Your task to perform on an android device: Go to notification settings Image 0: 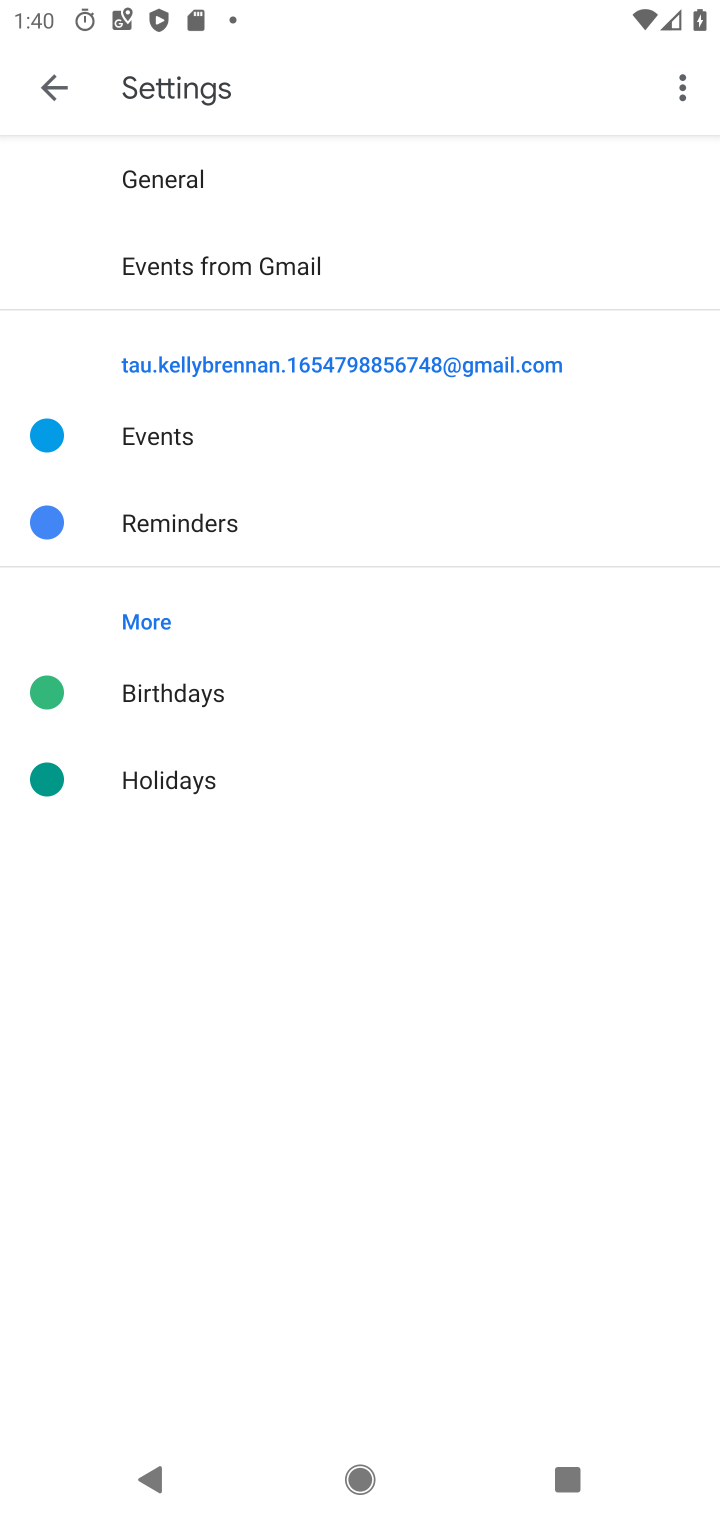
Step 0: press home button
Your task to perform on an android device: Go to notification settings Image 1: 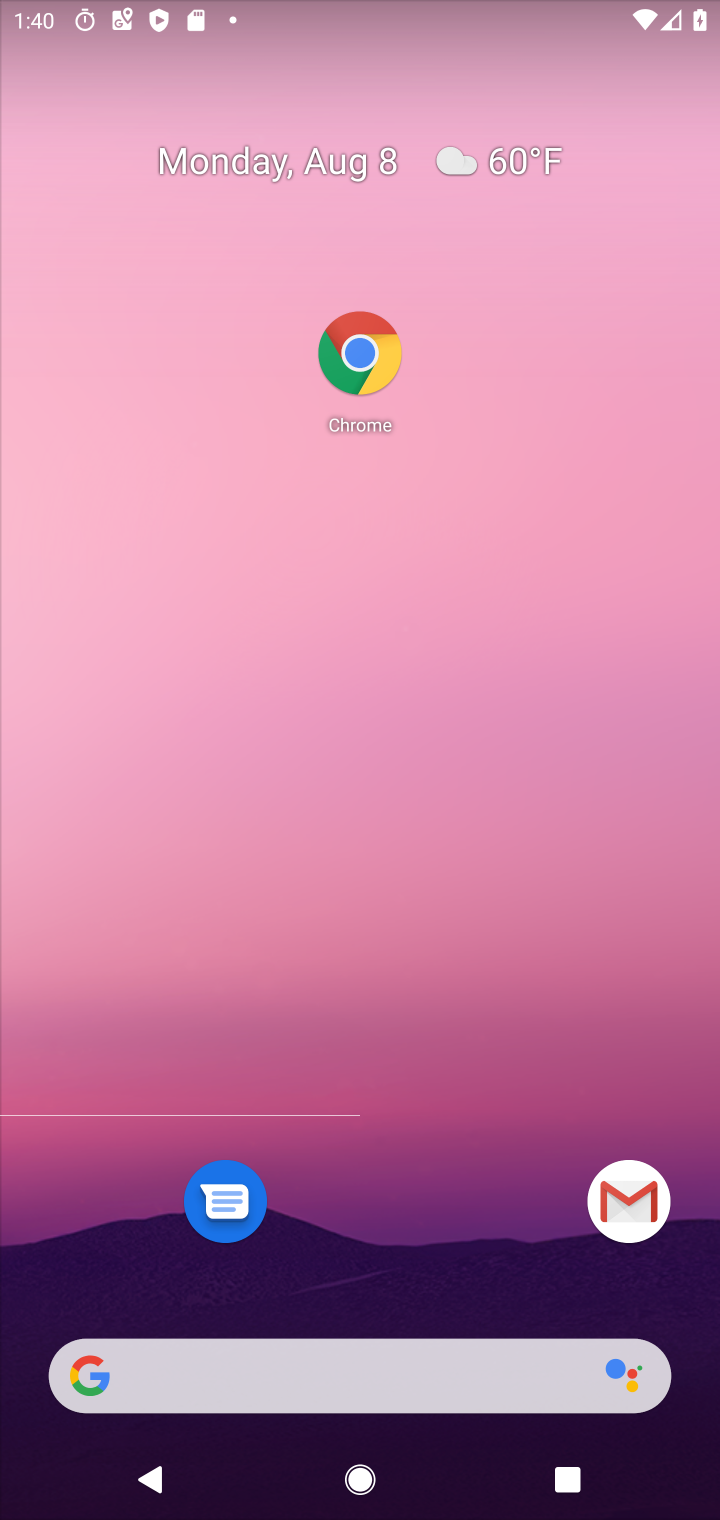
Step 1: drag from (411, 1375) to (585, 303)
Your task to perform on an android device: Go to notification settings Image 2: 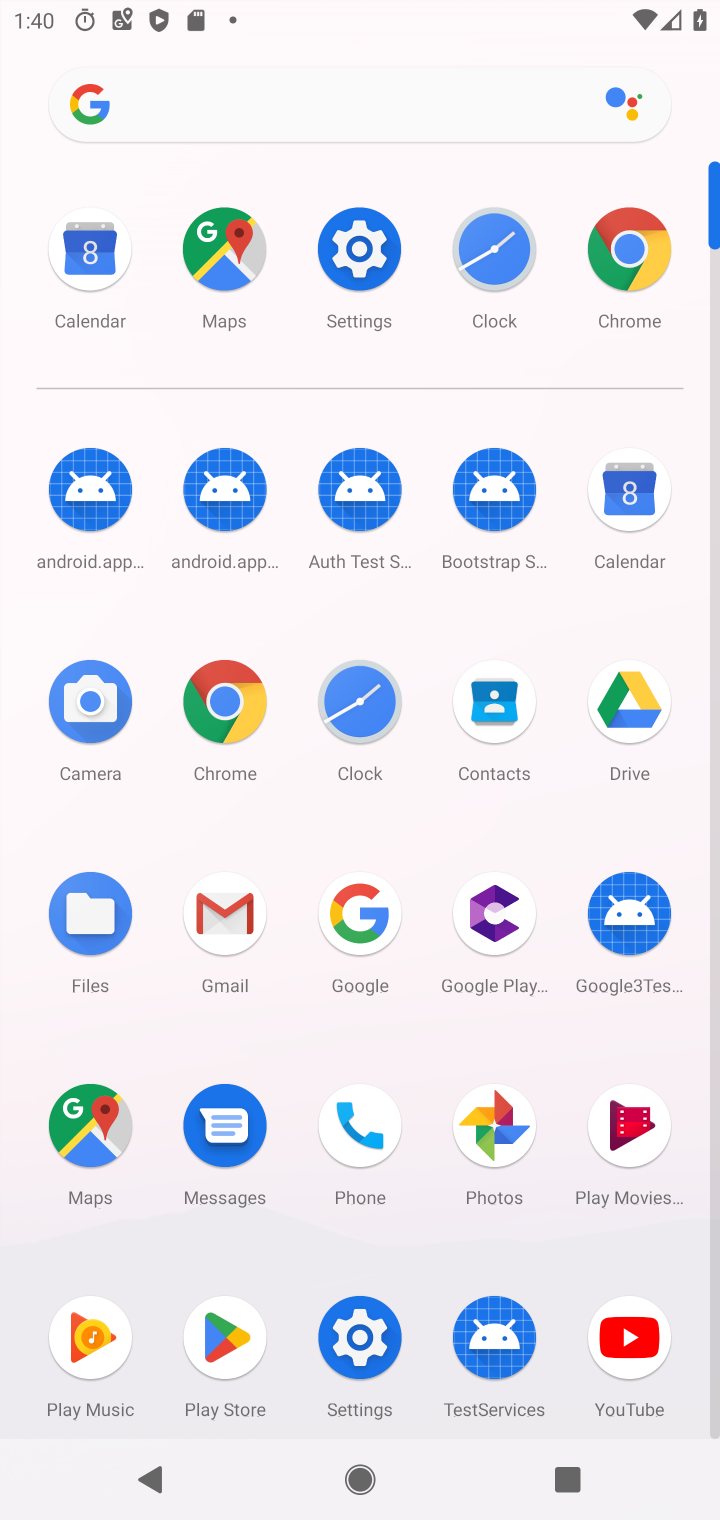
Step 2: click (362, 263)
Your task to perform on an android device: Go to notification settings Image 3: 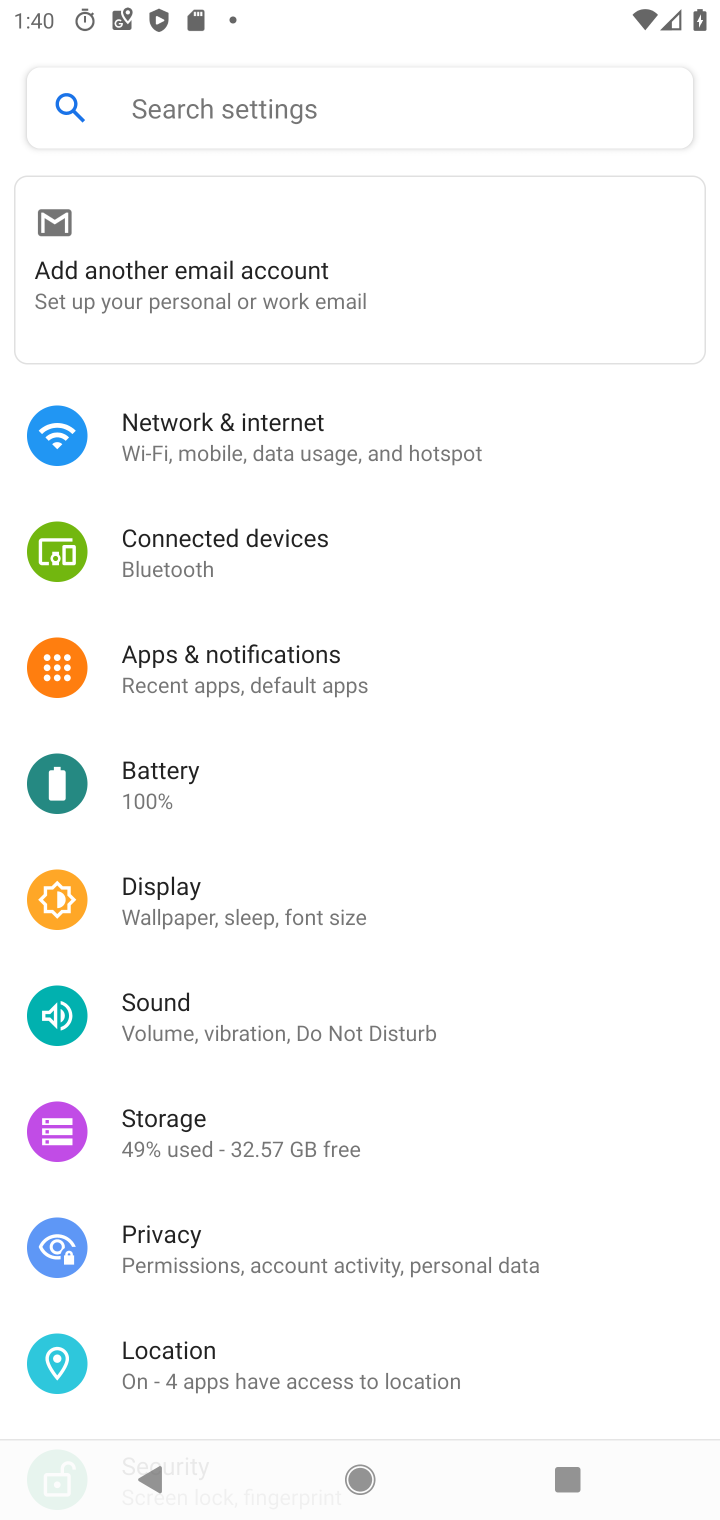
Step 3: click (214, 123)
Your task to perform on an android device: Go to notification settings Image 4: 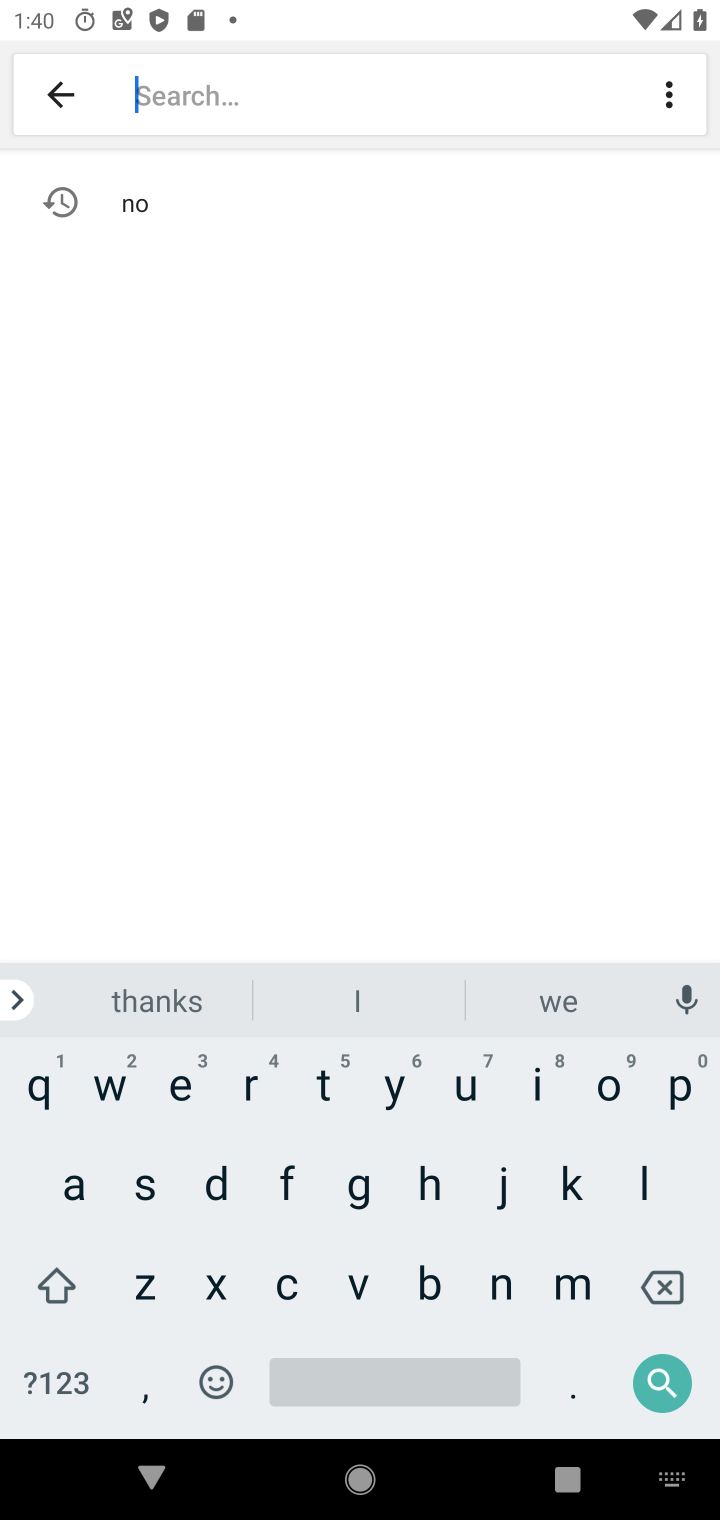
Step 4: click (229, 198)
Your task to perform on an android device: Go to notification settings Image 5: 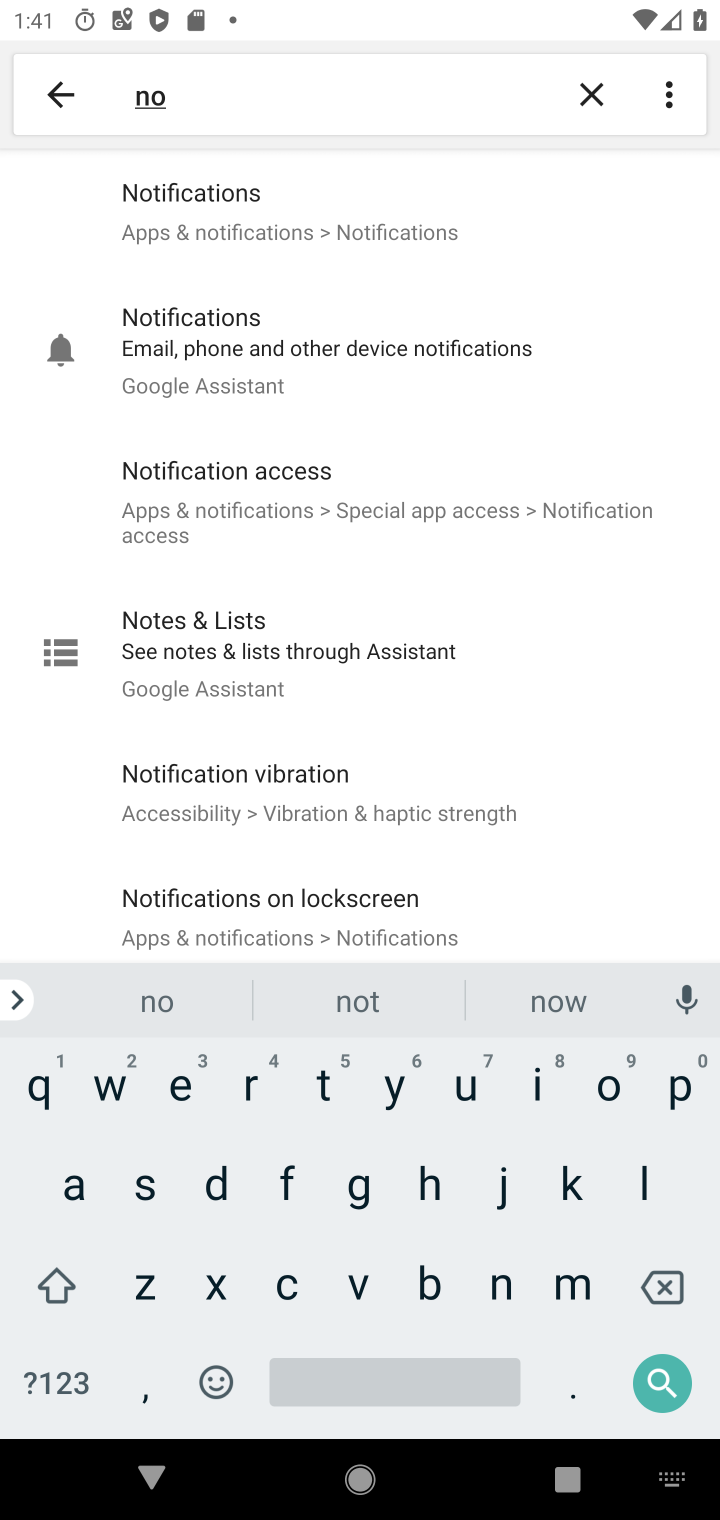
Step 5: click (198, 194)
Your task to perform on an android device: Go to notification settings Image 6: 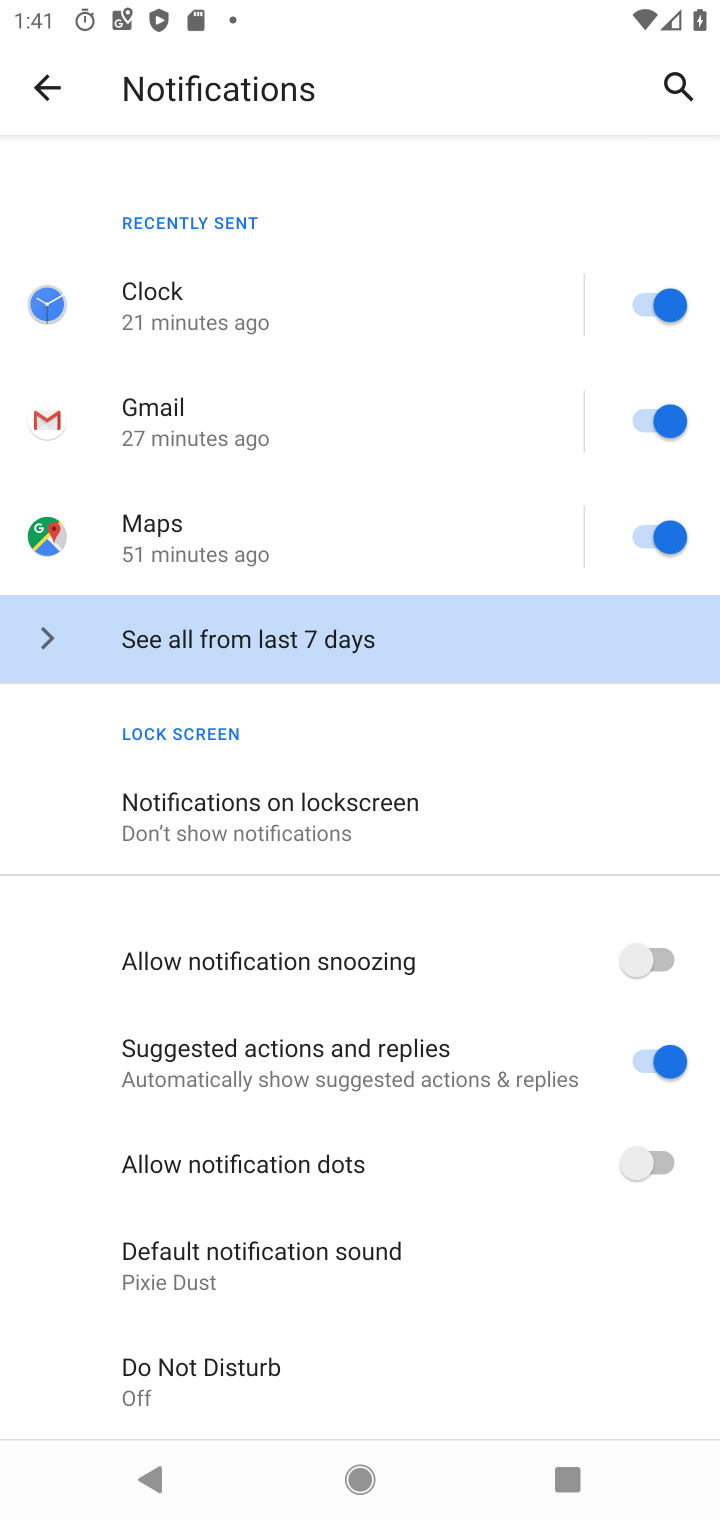
Step 6: click (202, 822)
Your task to perform on an android device: Go to notification settings Image 7: 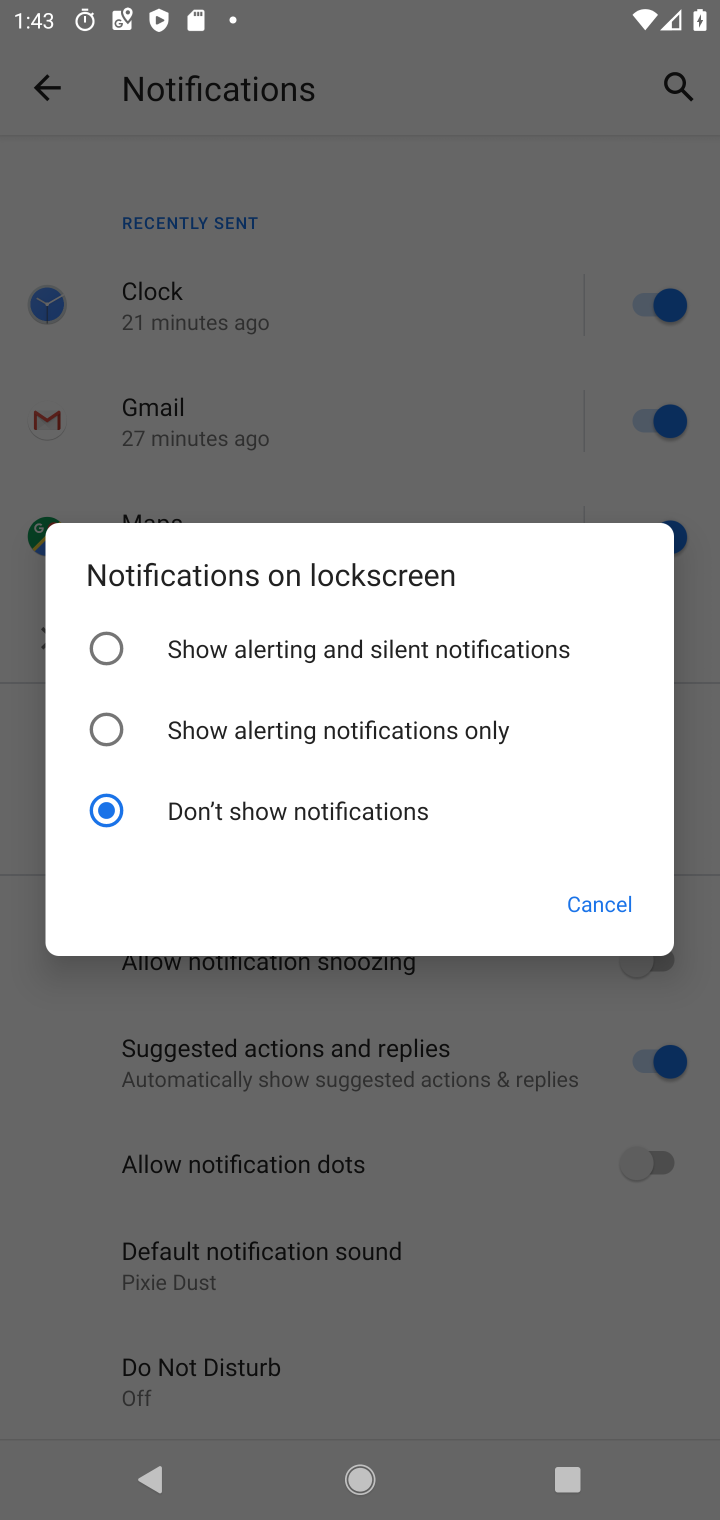
Step 7: task complete